Your task to perform on an android device: open a bookmark in the chrome app Image 0: 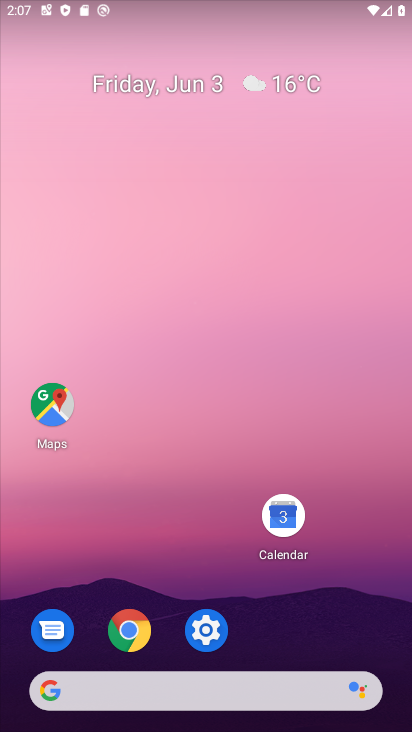
Step 0: drag from (287, 697) to (207, 67)
Your task to perform on an android device: open a bookmark in the chrome app Image 1: 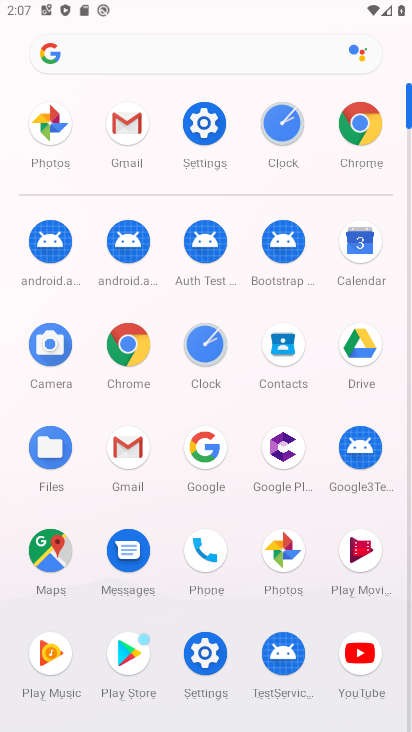
Step 1: click (353, 126)
Your task to perform on an android device: open a bookmark in the chrome app Image 2: 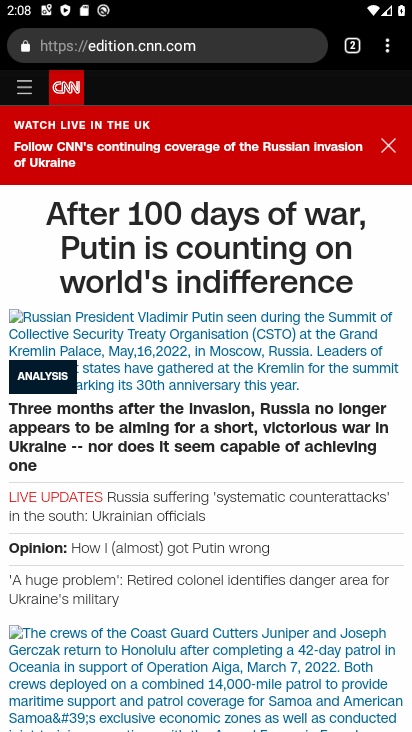
Step 2: click (377, 64)
Your task to perform on an android device: open a bookmark in the chrome app Image 3: 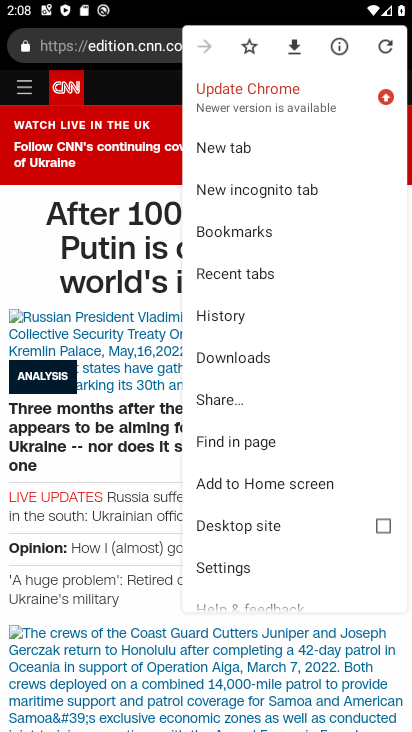
Step 3: click (232, 242)
Your task to perform on an android device: open a bookmark in the chrome app Image 4: 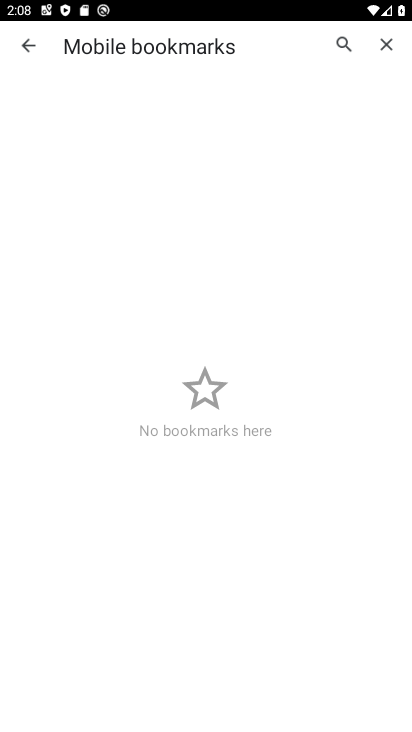
Step 4: task complete